Your task to perform on an android device: see tabs open on other devices in the chrome app Image 0: 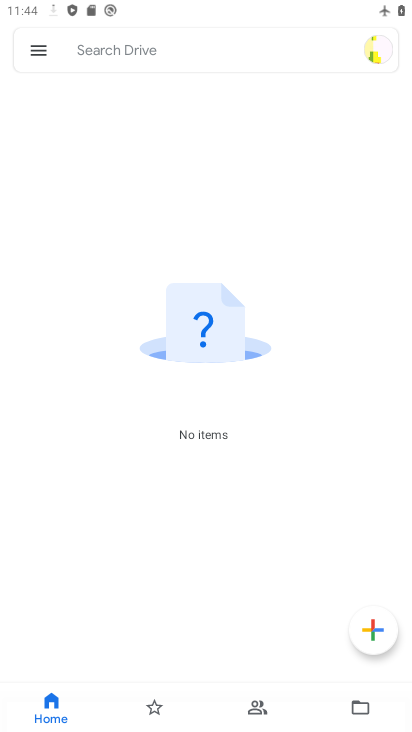
Step 0: press back button
Your task to perform on an android device: see tabs open on other devices in the chrome app Image 1: 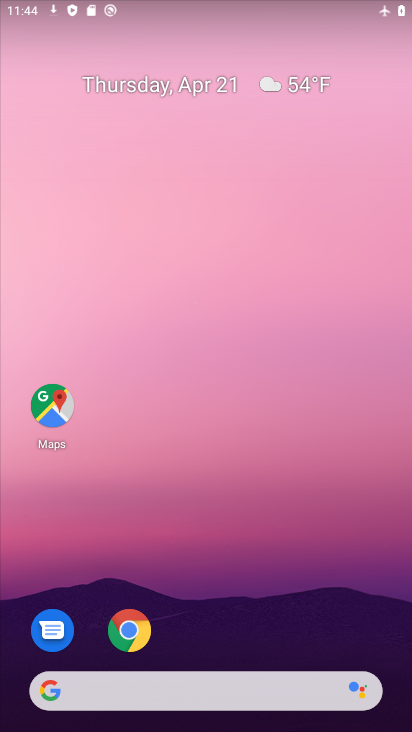
Step 1: click (133, 622)
Your task to perform on an android device: see tabs open on other devices in the chrome app Image 2: 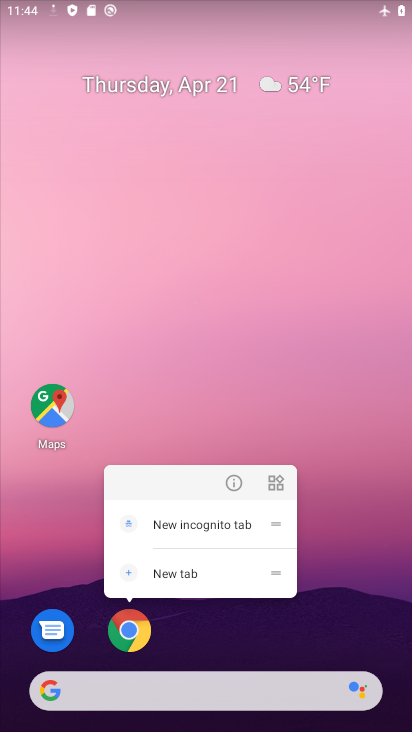
Step 2: click (128, 635)
Your task to perform on an android device: see tabs open on other devices in the chrome app Image 3: 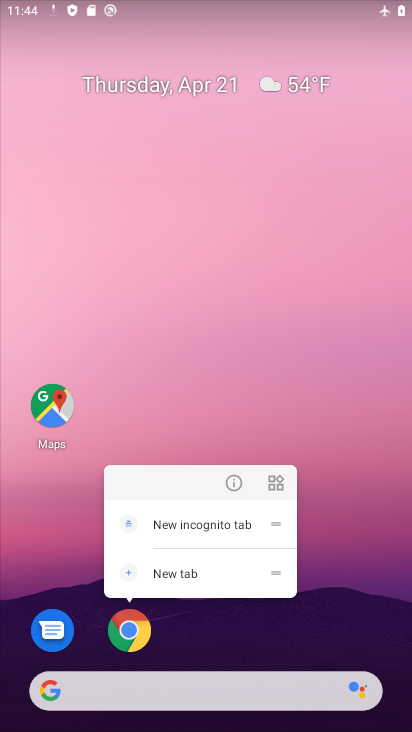
Step 3: click (128, 635)
Your task to perform on an android device: see tabs open on other devices in the chrome app Image 4: 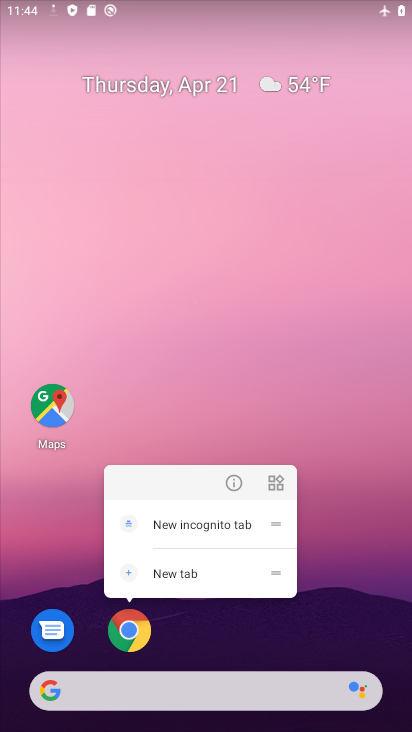
Step 4: click (128, 635)
Your task to perform on an android device: see tabs open on other devices in the chrome app Image 5: 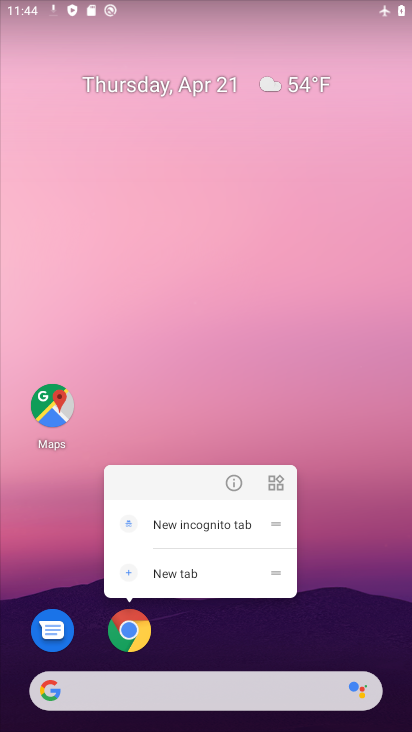
Step 5: click (134, 634)
Your task to perform on an android device: see tabs open on other devices in the chrome app Image 6: 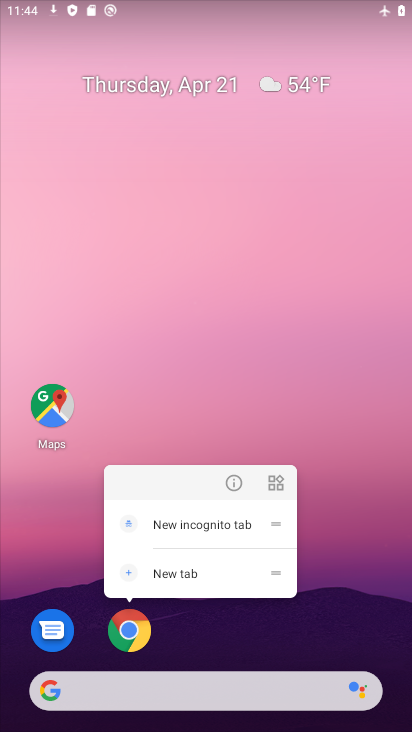
Step 6: click (134, 634)
Your task to perform on an android device: see tabs open on other devices in the chrome app Image 7: 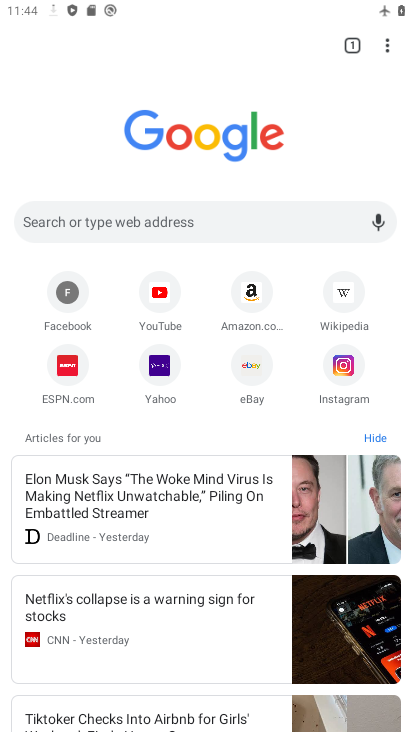
Step 7: click (346, 46)
Your task to perform on an android device: see tabs open on other devices in the chrome app Image 8: 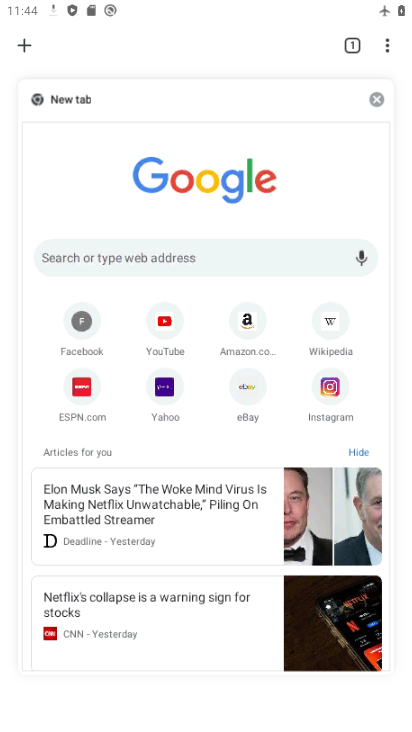
Step 8: task complete